Your task to perform on an android device: Open a new Chrome incognito tab Image 0: 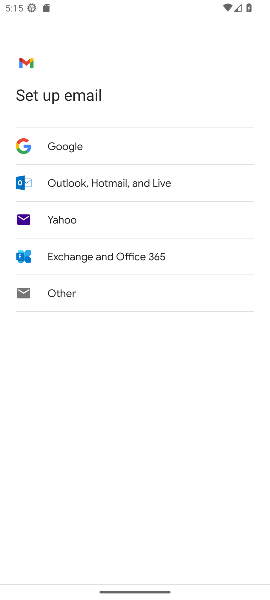
Step 0: press home button
Your task to perform on an android device: Open a new Chrome incognito tab Image 1: 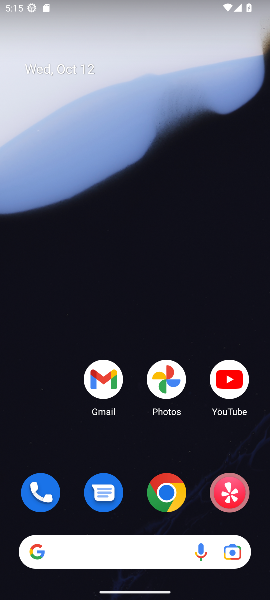
Step 1: click (166, 492)
Your task to perform on an android device: Open a new Chrome incognito tab Image 2: 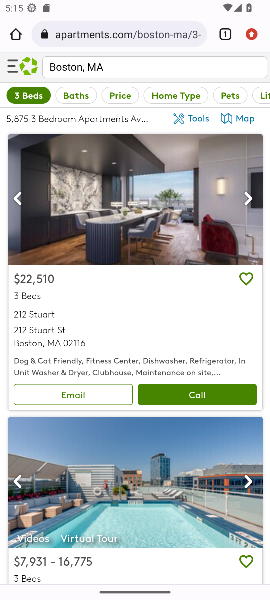
Step 2: click (250, 34)
Your task to perform on an android device: Open a new Chrome incognito tab Image 3: 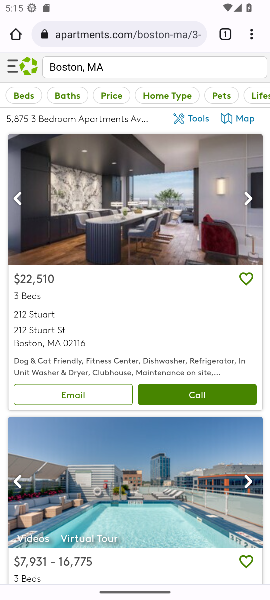
Step 3: click (251, 34)
Your task to perform on an android device: Open a new Chrome incognito tab Image 4: 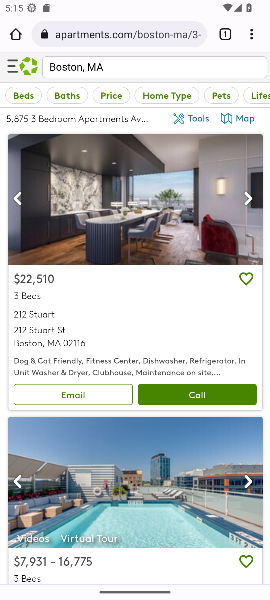
Step 4: click (254, 34)
Your task to perform on an android device: Open a new Chrome incognito tab Image 5: 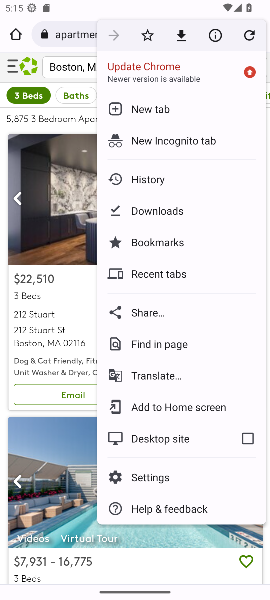
Step 5: click (184, 138)
Your task to perform on an android device: Open a new Chrome incognito tab Image 6: 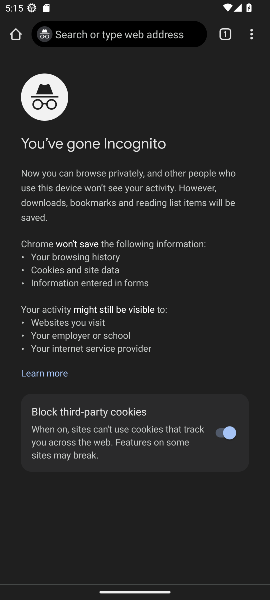
Step 6: task complete